Your task to perform on an android device: Open calendar and show me the fourth week of next month Image 0: 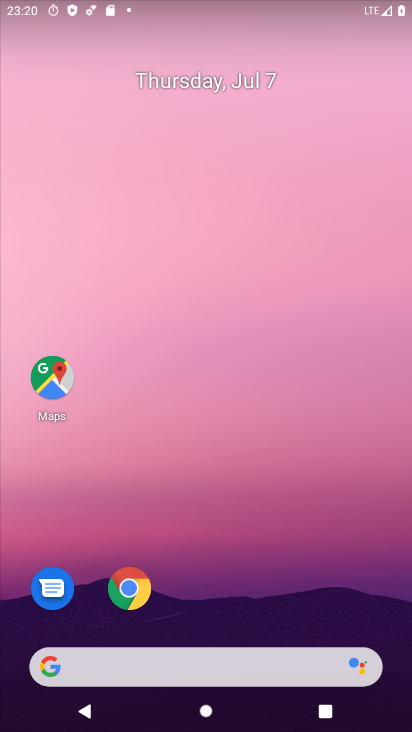
Step 0: drag from (250, 611) to (262, 139)
Your task to perform on an android device: Open calendar and show me the fourth week of next month Image 1: 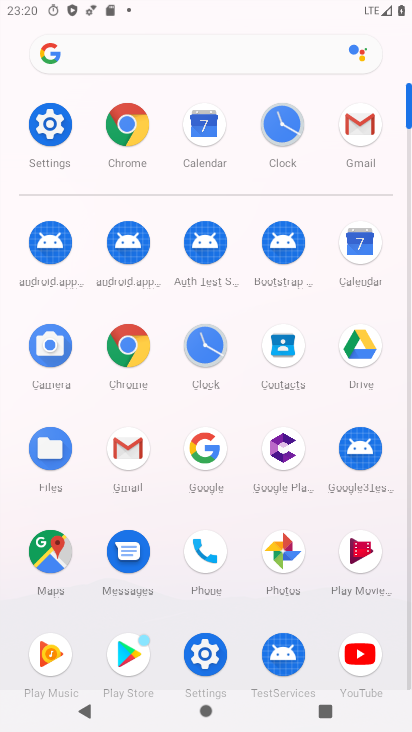
Step 1: click (368, 249)
Your task to perform on an android device: Open calendar and show me the fourth week of next month Image 2: 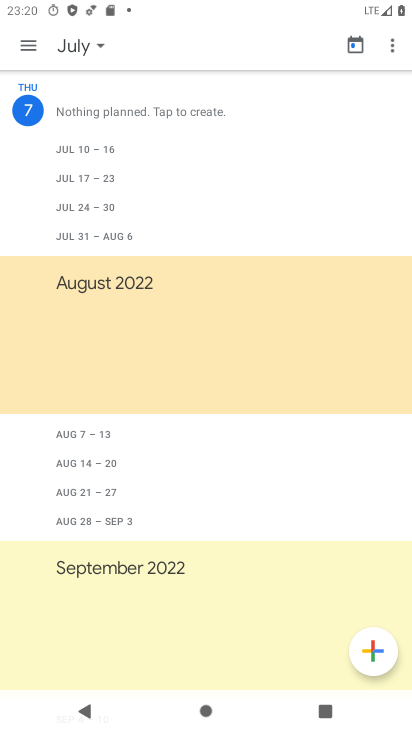
Step 2: click (82, 49)
Your task to perform on an android device: Open calendar and show me the fourth week of next month Image 3: 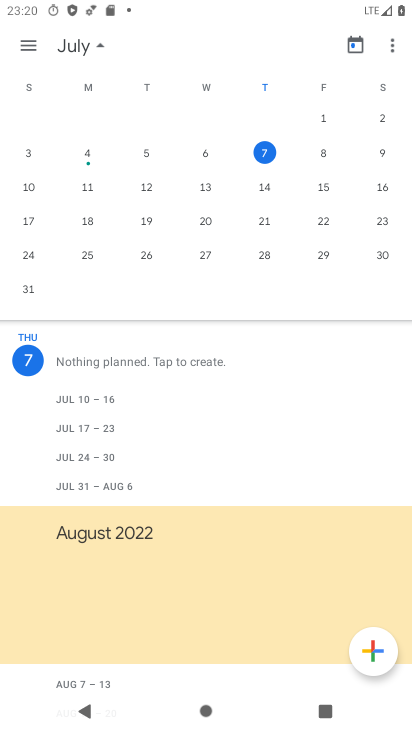
Step 3: drag from (382, 235) to (40, 214)
Your task to perform on an android device: Open calendar and show me the fourth week of next month Image 4: 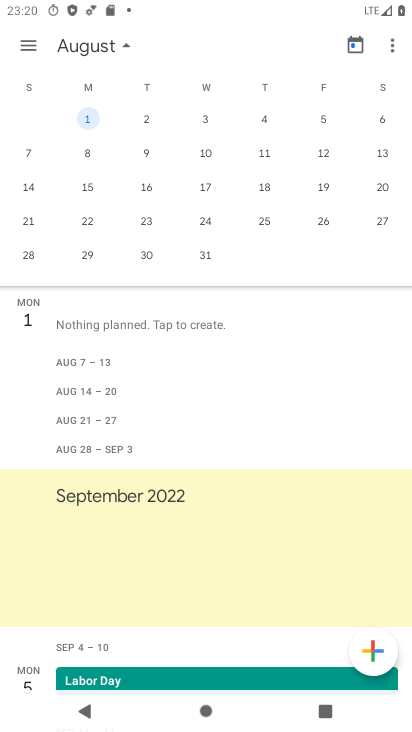
Step 4: click (29, 223)
Your task to perform on an android device: Open calendar and show me the fourth week of next month Image 5: 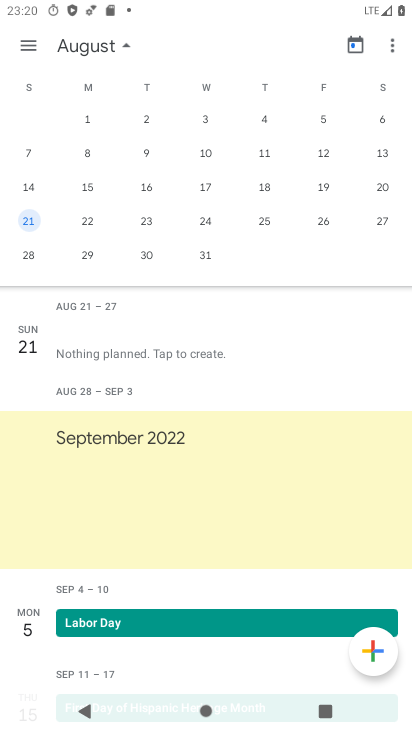
Step 5: click (32, 47)
Your task to perform on an android device: Open calendar and show me the fourth week of next month Image 6: 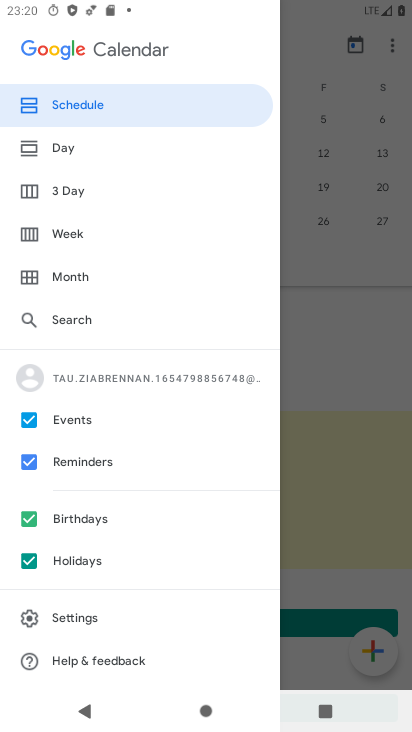
Step 6: click (69, 232)
Your task to perform on an android device: Open calendar and show me the fourth week of next month Image 7: 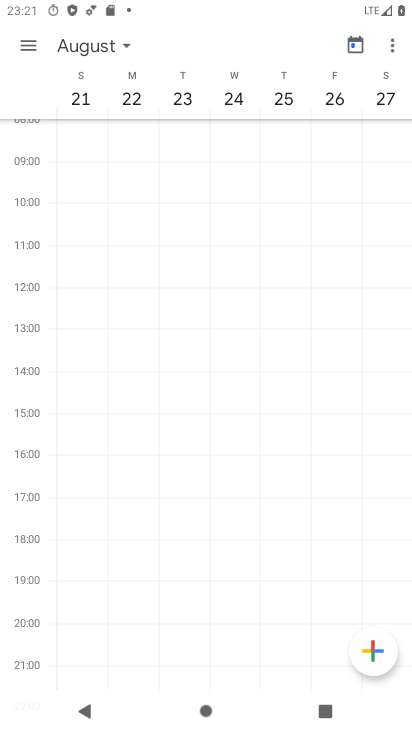
Step 7: task complete